Your task to perform on an android device: Open the calendar app, open the side menu, and click the "Day" option Image 0: 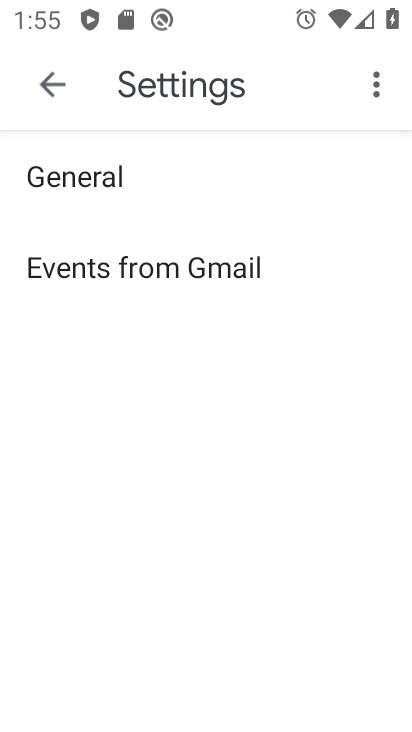
Step 0: press home button
Your task to perform on an android device: Open the calendar app, open the side menu, and click the "Day" option Image 1: 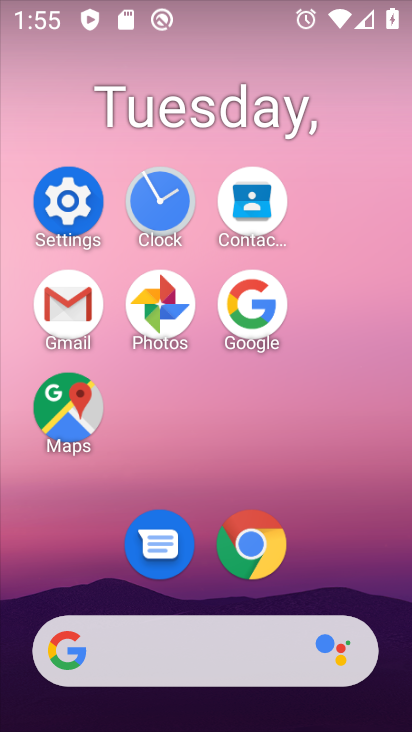
Step 1: drag from (335, 520) to (328, 85)
Your task to perform on an android device: Open the calendar app, open the side menu, and click the "Day" option Image 2: 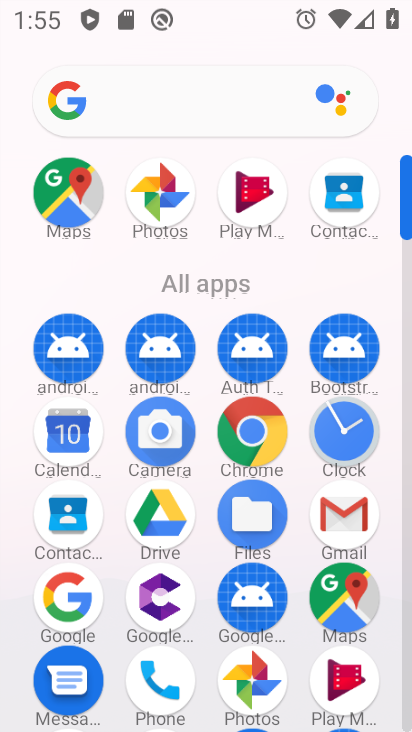
Step 2: drag from (87, 447) to (312, 240)
Your task to perform on an android device: Open the calendar app, open the side menu, and click the "Day" option Image 3: 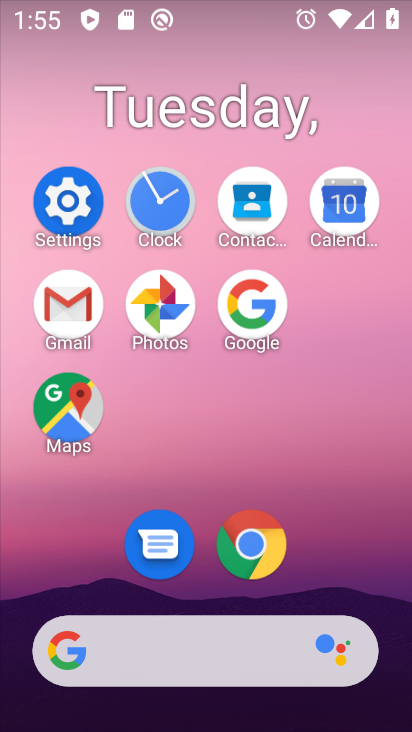
Step 3: click (331, 201)
Your task to perform on an android device: Open the calendar app, open the side menu, and click the "Day" option Image 4: 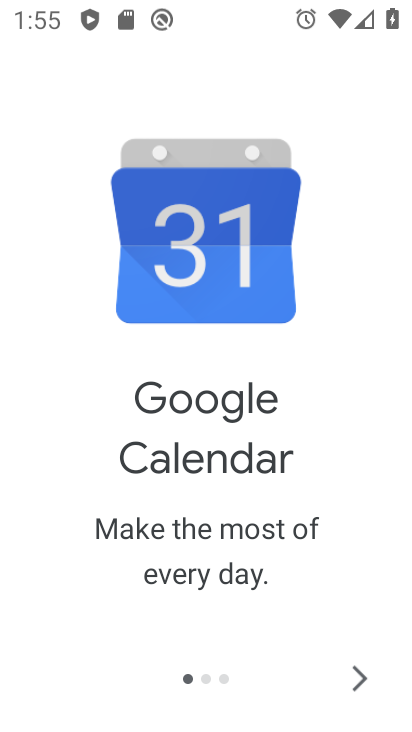
Step 4: click (356, 677)
Your task to perform on an android device: Open the calendar app, open the side menu, and click the "Day" option Image 5: 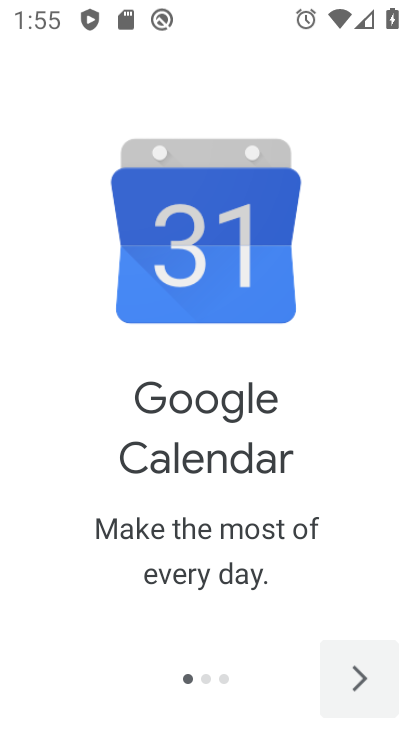
Step 5: click (356, 677)
Your task to perform on an android device: Open the calendar app, open the side menu, and click the "Day" option Image 6: 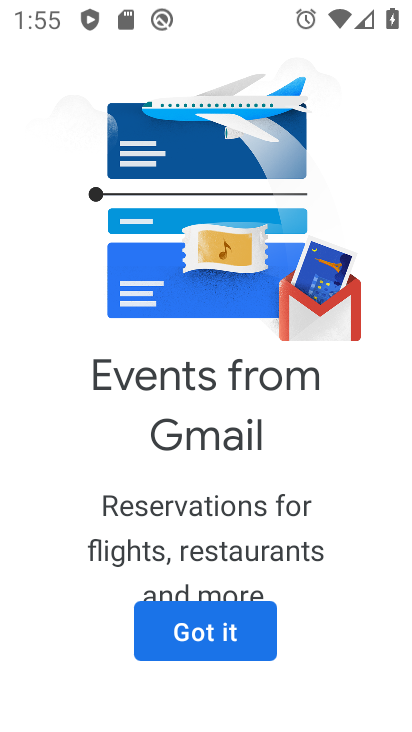
Step 6: click (225, 635)
Your task to perform on an android device: Open the calendar app, open the side menu, and click the "Day" option Image 7: 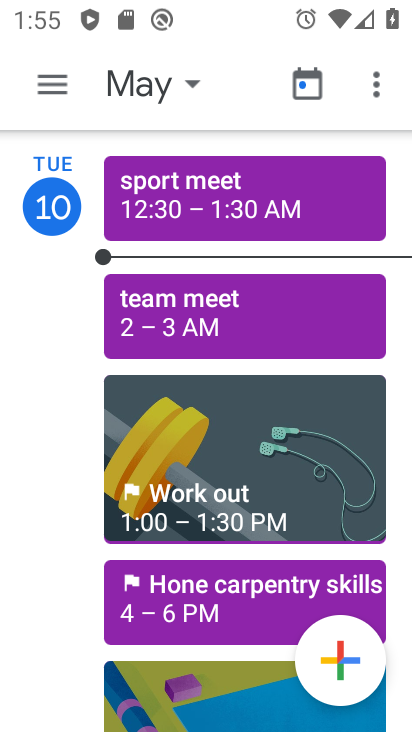
Step 7: click (75, 83)
Your task to perform on an android device: Open the calendar app, open the side menu, and click the "Day" option Image 8: 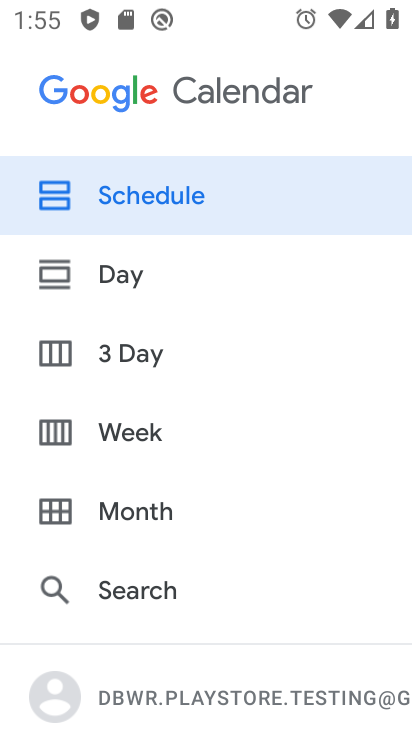
Step 8: click (109, 259)
Your task to perform on an android device: Open the calendar app, open the side menu, and click the "Day" option Image 9: 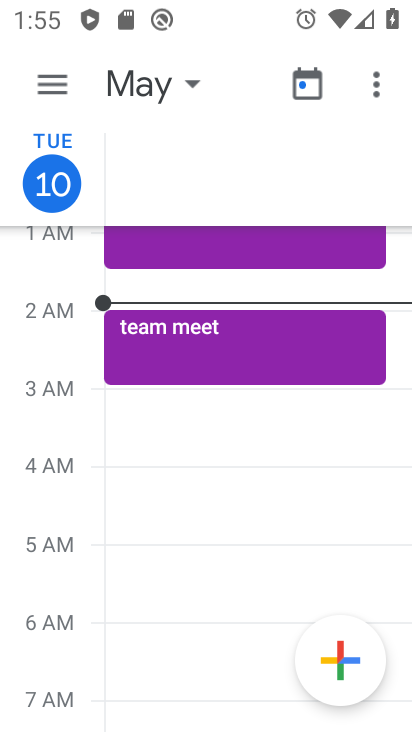
Step 9: task complete